Your task to perform on an android device: Go to notification settings Image 0: 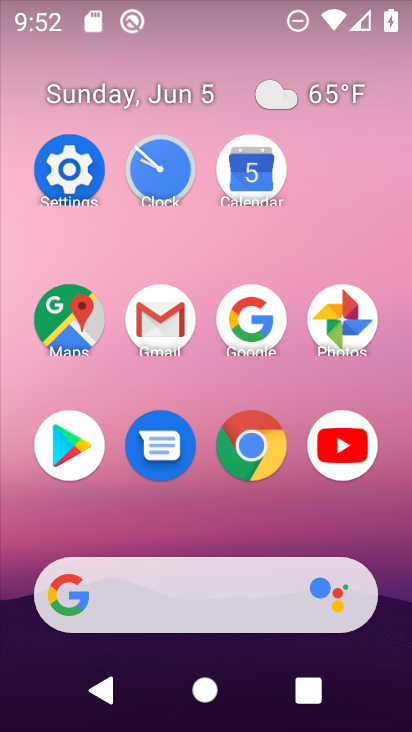
Step 0: click (68, 160)
Your task to perform on an android device: Go to notification settings Image 1: 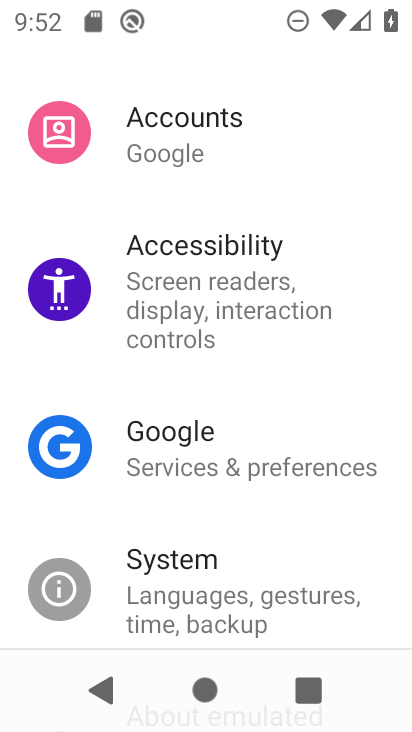
Step 1: drag from (206, 493) to (232, 93)
Your task to perform on an android device: Go to notification settings Image 2: 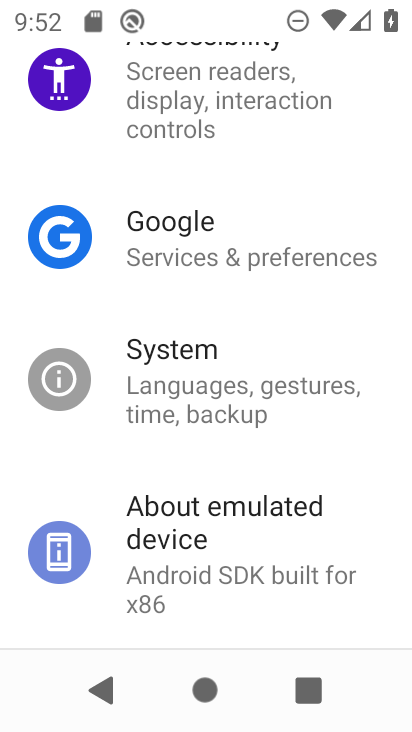
Step 2: drag from (271, 254) to (327, 622)
Your task to perform on an android device: Go to notification settings Image 3: 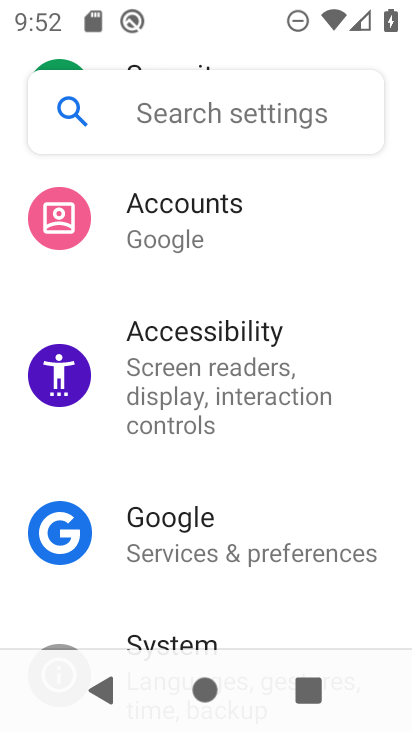
Step 3: drag from (257, 193) to (302, 587)
Your task to perform on an android device: Go to notification settings Image 4: 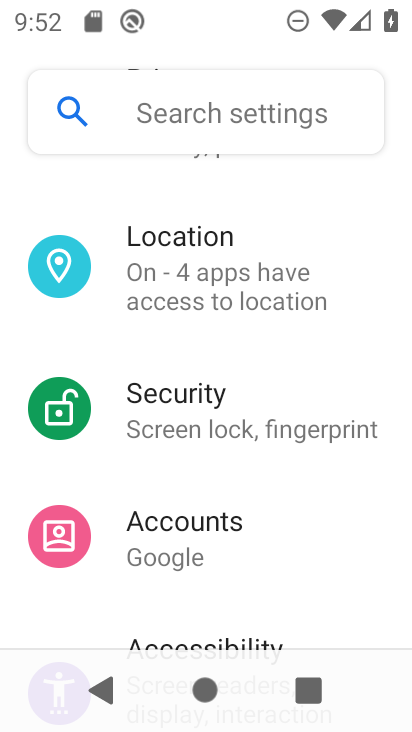
Step 4: drag from (314, 201) to (292, 620)
Your task to perform on an android device: Go to notification settings Image 5: 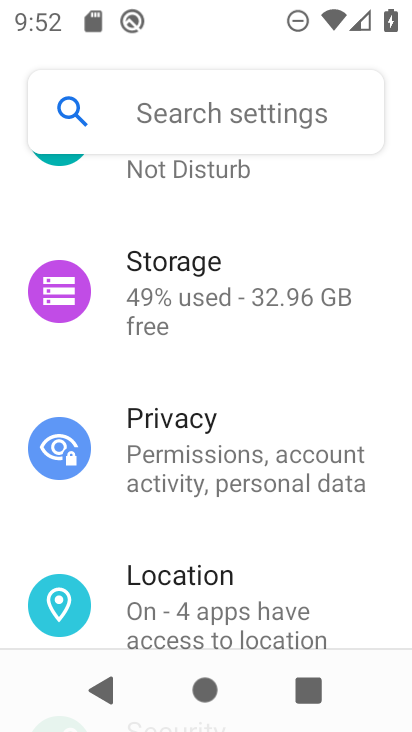
Step 5: drag from (285, 188) to (286, 577)
Your task to perform on an android device: Go to notification settings Image 6: 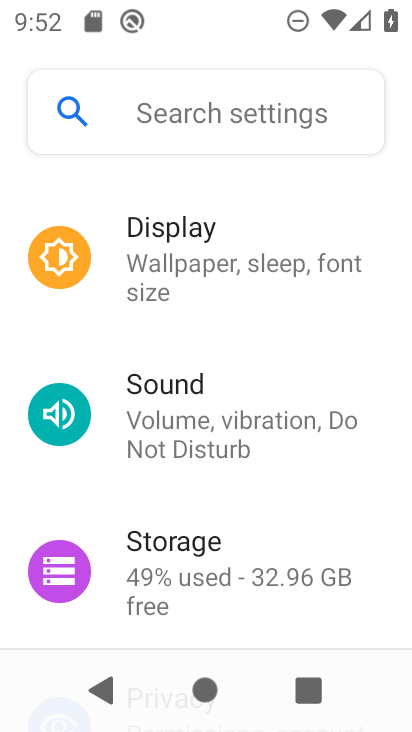
Step 6: drag from (283, 159) to (269, 635)
Your task to perform on an android device: Go to notification settings Image 7: 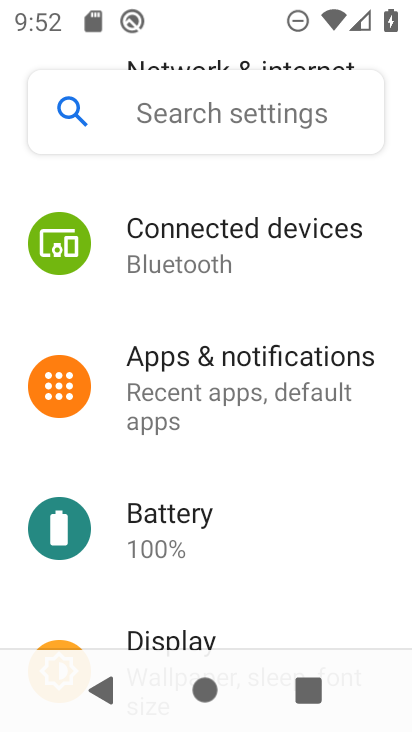
Step 7: click (292, 361)
Your task to perform on an android device: Go to notification settings Image 8: 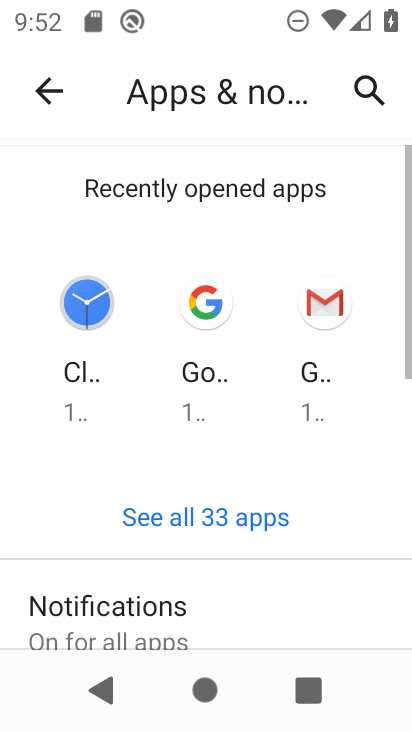
Step 8: task complete